Your task to perform on an android device: change the clock display to show seconds Image 0: 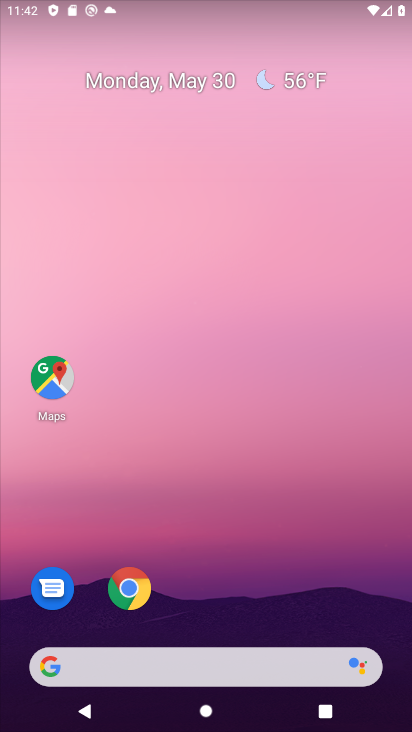
Step 0: drag from (207, 610) to (231, 29)
Your task to perform on an android device: change the clock display to show seconds Image 1: 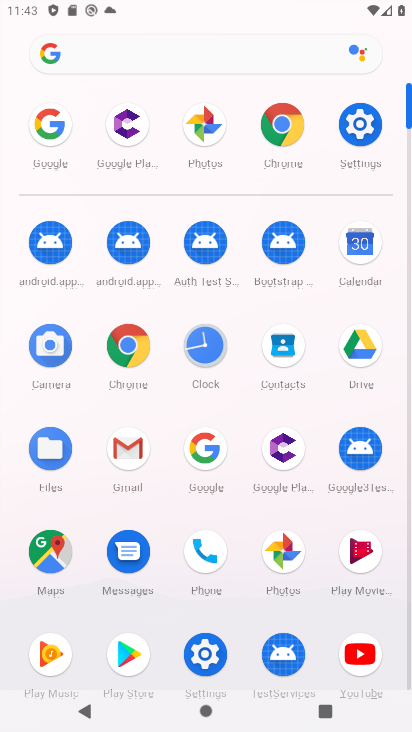
Step 1: click (195, 344)
Your task to perform on an android device: change the clock display to show seconds Image 2: 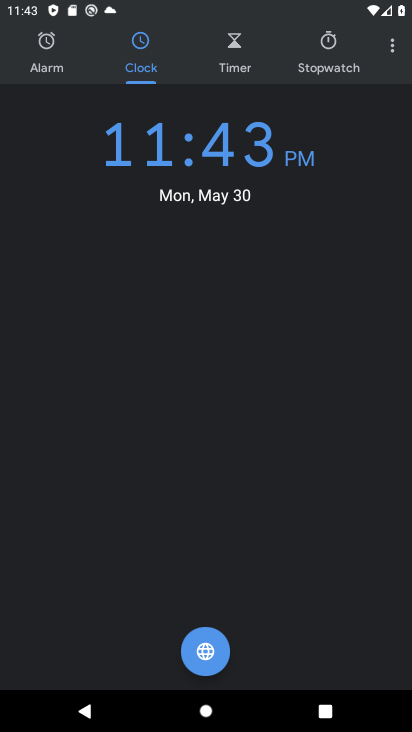
Step 2: click (379, 58)
Your task to perform on an android device: change the clock display to show seconds Image 3: 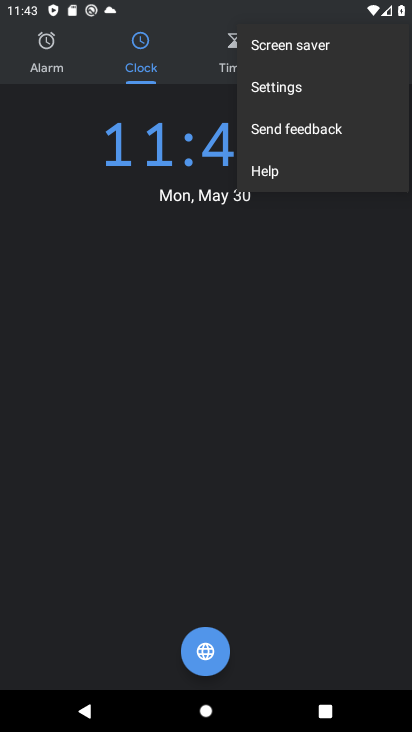
Step 3: click (319, 93)
Your task to perform on an android device: change the clock display to show seconds Image 4: 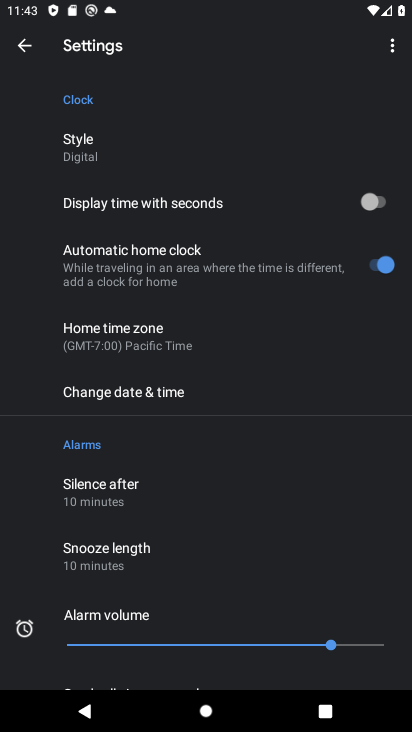
Step 4: drag from (76, 165) to (74, 514)
Your task to perform on an android device: change the clock display to show seconds Image 5: 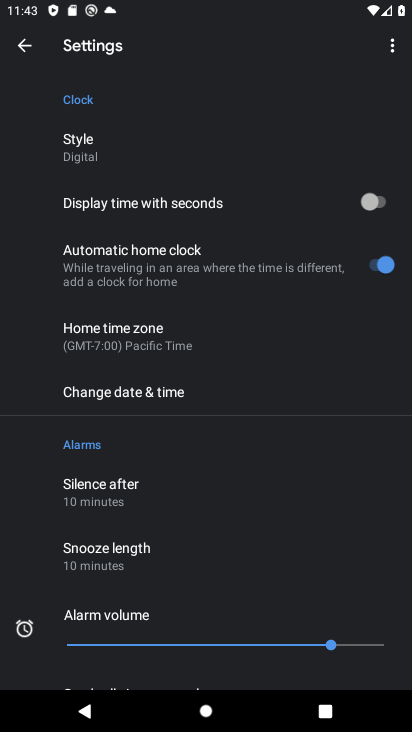
Step 5: click (378, 204)
Your task to perform on an android device: change the clock display to show seconds Image 6: 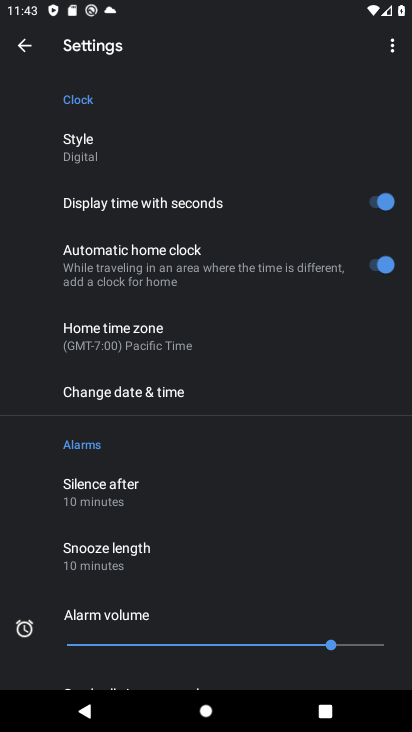
Step 6: task complete